Your task to perform on an android device: Search for logitech g502 on ebay.com, select the first entry, add it to the cart, then select checkout. Image 0: 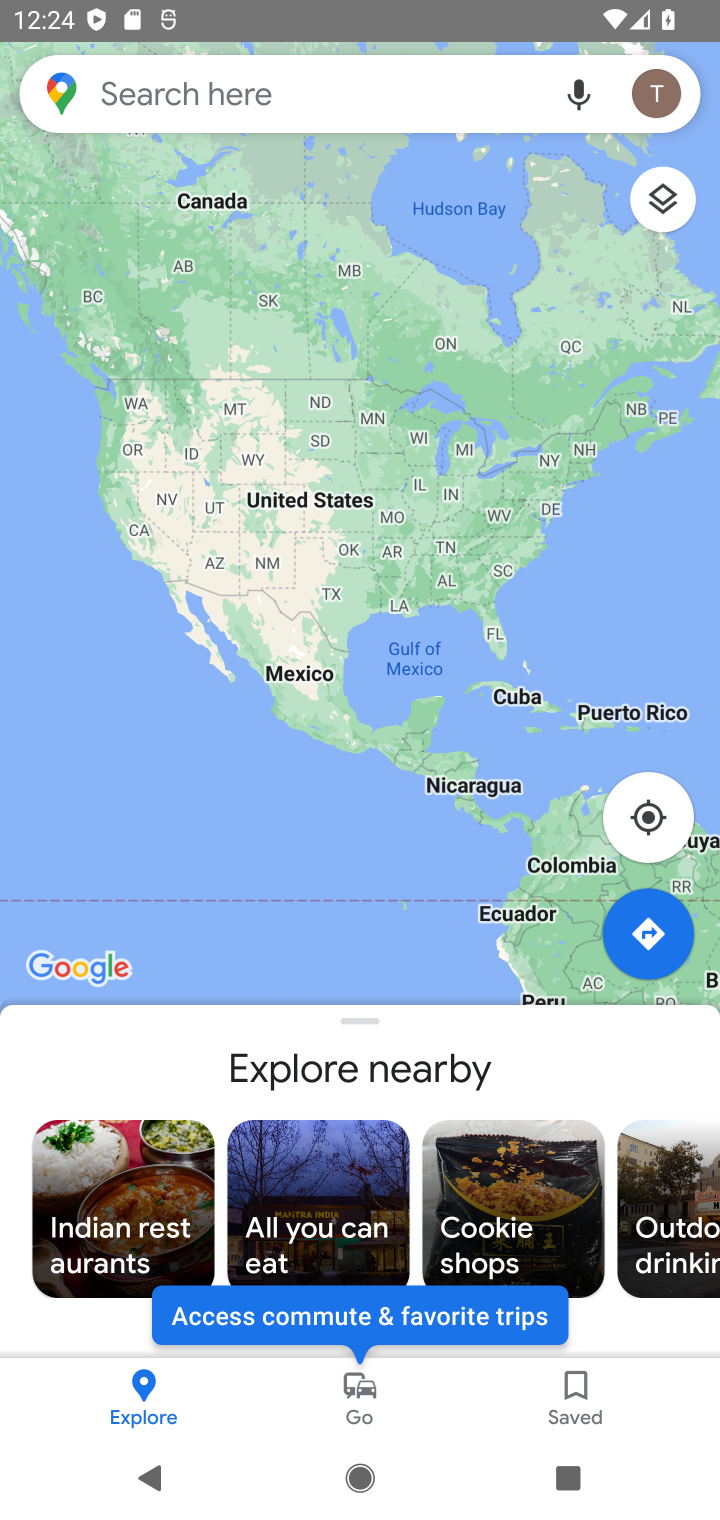
Step 0: press home button
Your task to perform on an android device: Search for logitech g502 on ebay.com, select the first entry, add it to the cart, then select checkout. Image 1: 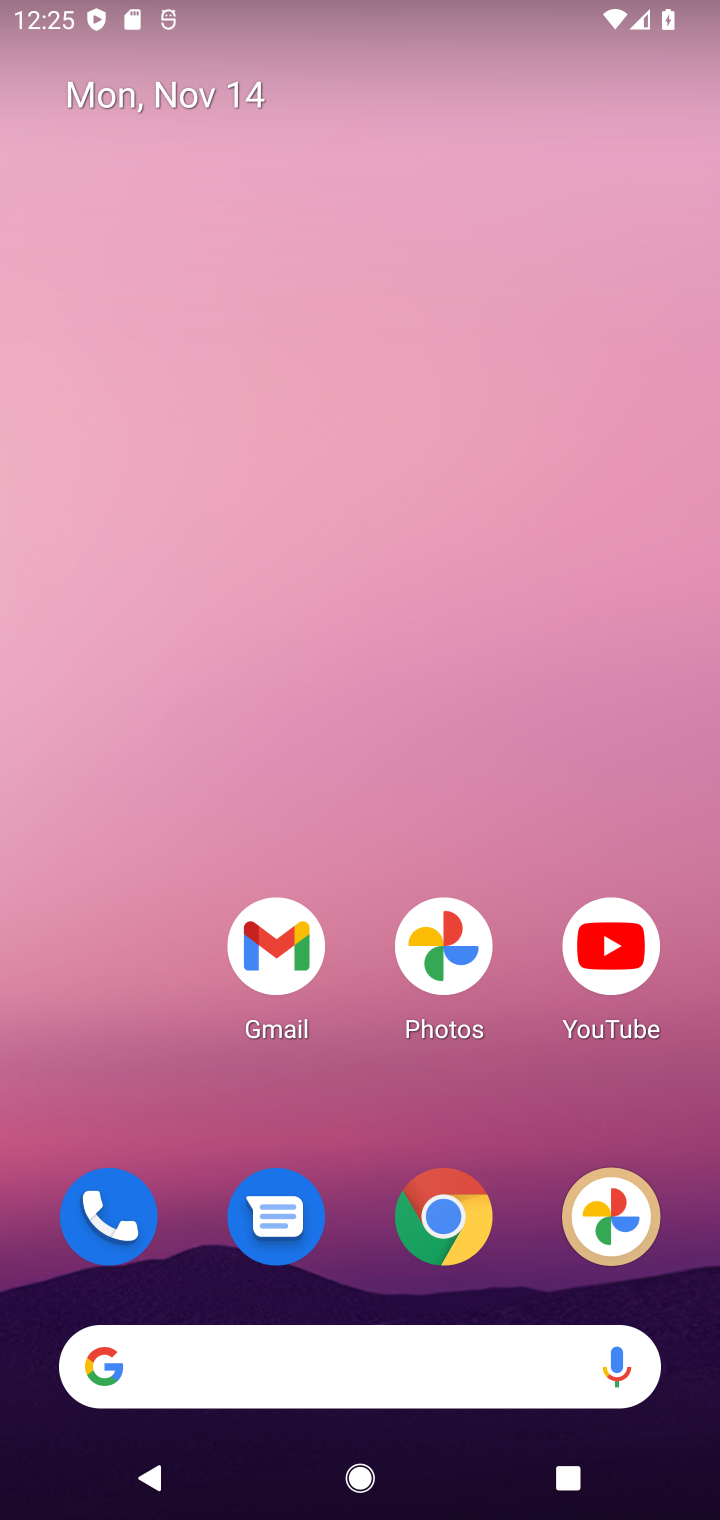
Step 1: click (454, 1202)
Your task to perform on an android device: Search for logitech g502 on ebay.com, select the first entry, add it to the cart, then select checkout. Image 2: 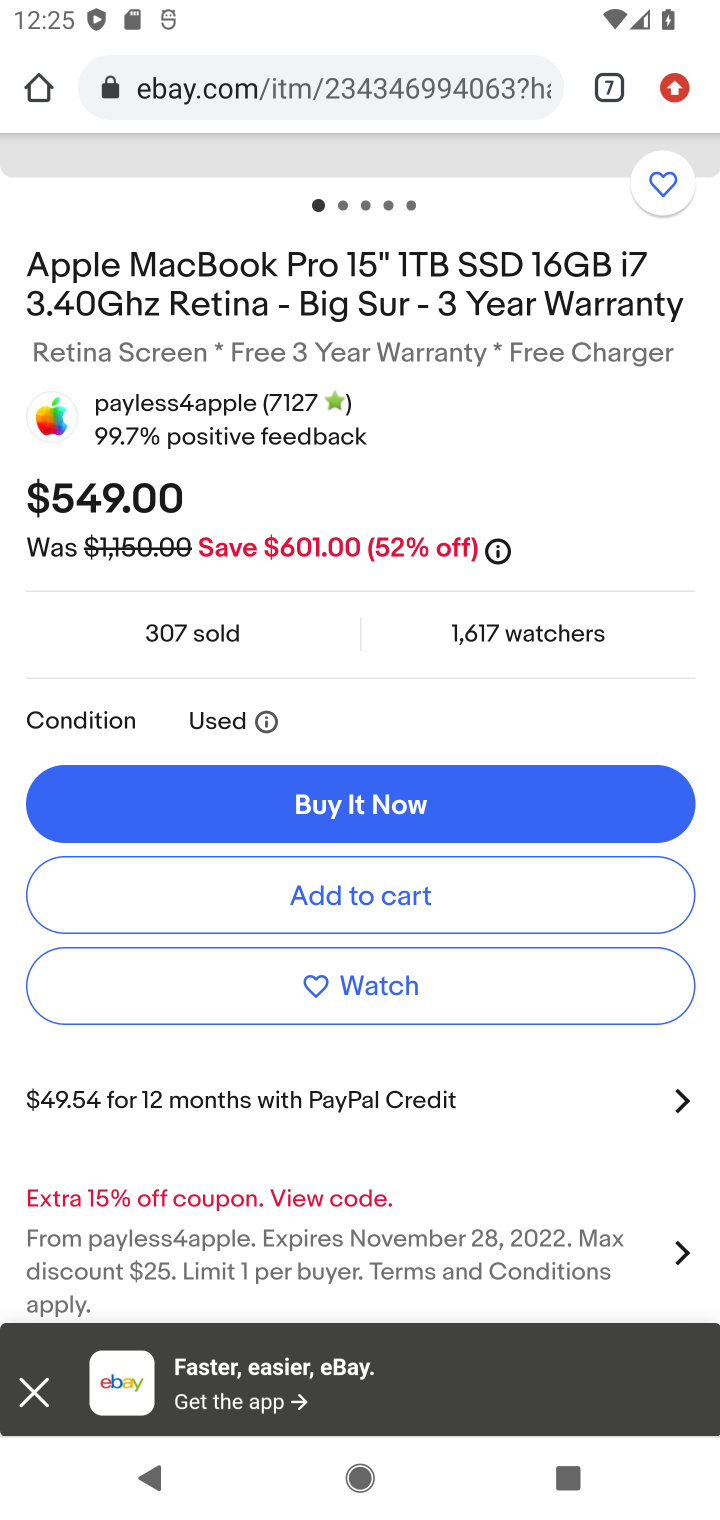
Step 2: drag from (460, 231) to (305, 1464)
Your task to perform on an android device: Search for logitech g502 on ebay.com, select the first entry, add it to the cart, then select checkout. Image 3: 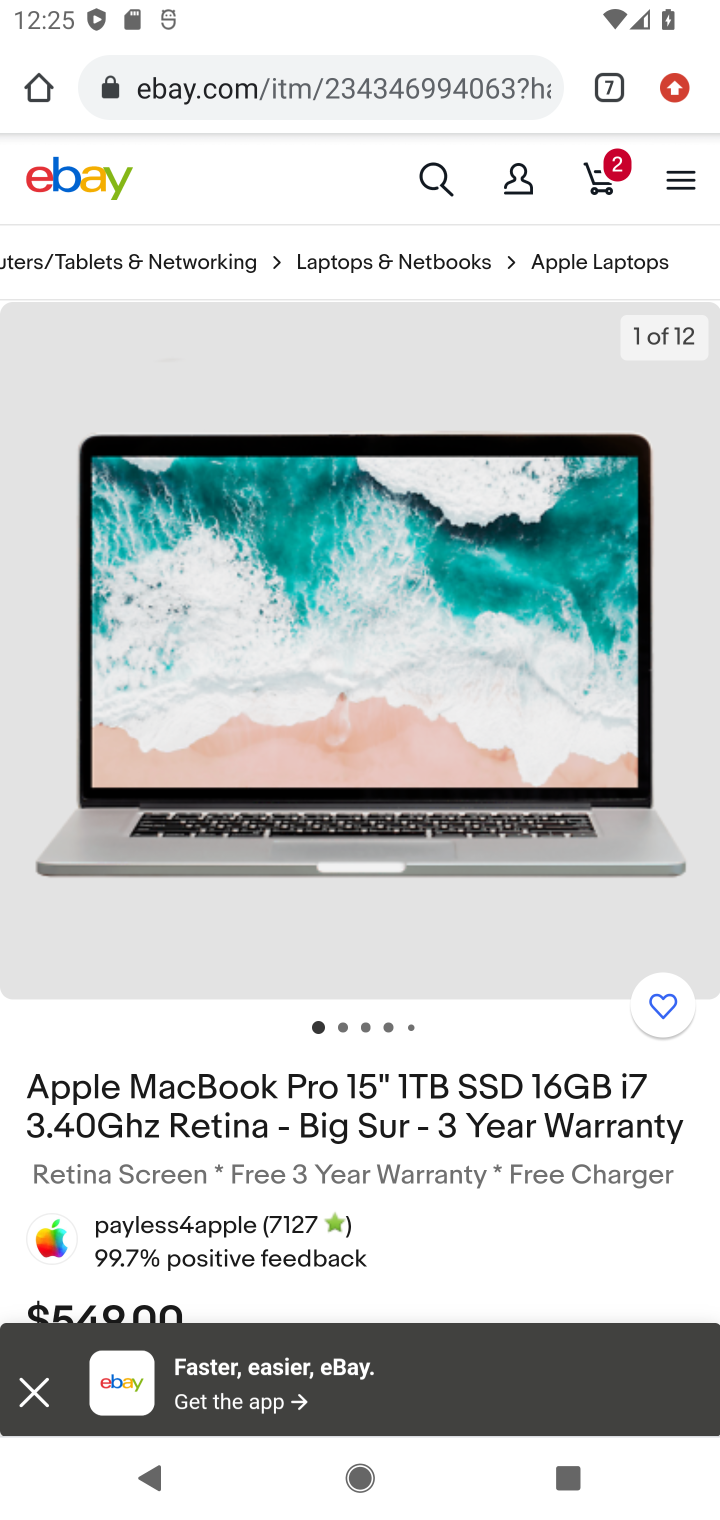
Step 3: click (431, 186)
Your task to perform on an android device: Search for logitech g502 on ebay.com, select the first entry, add it to the cart, then select checkout. Image 4: 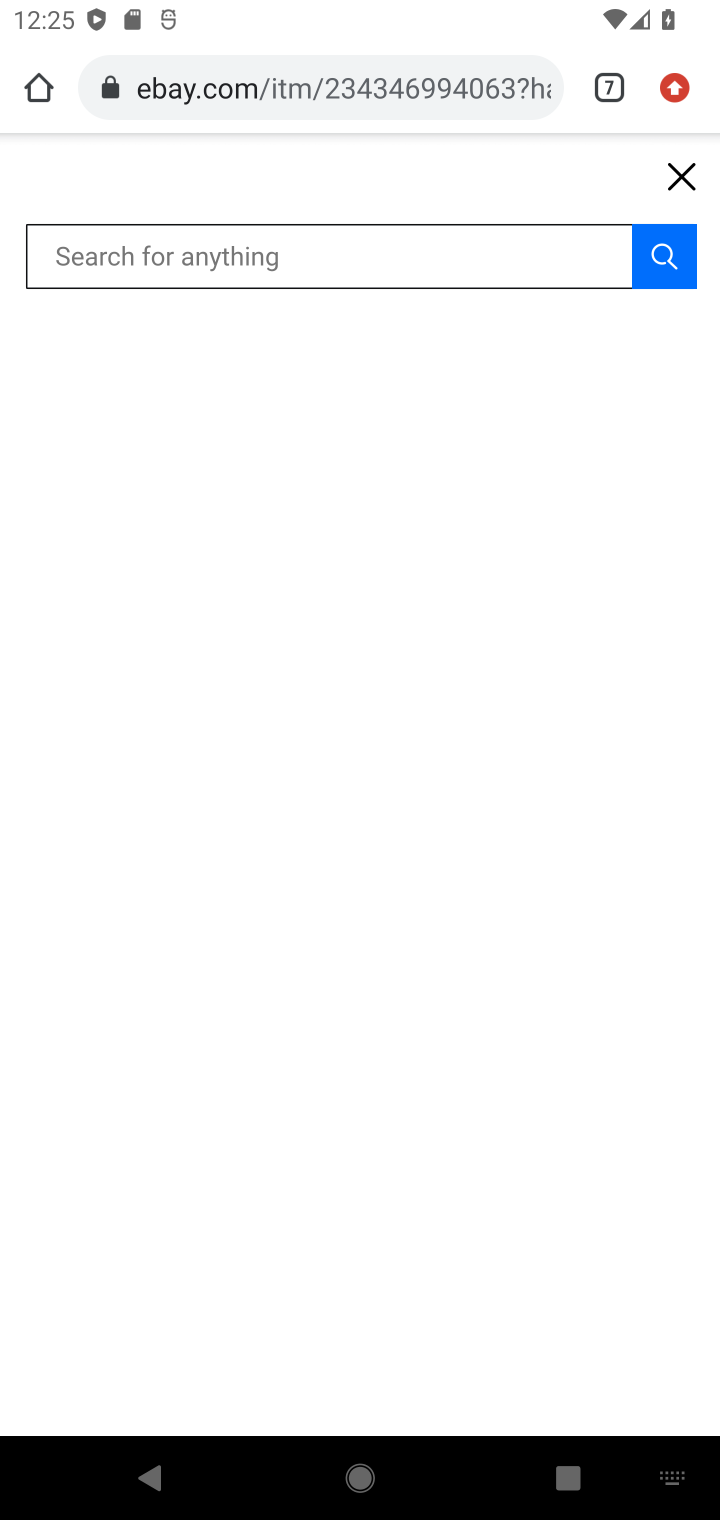
Step 4: type "logitech g502"
Your task to perform on an android device: Search for logitech g502 on ebay.com, select the first entry, add it to the cart, then select checkout. Image 5: 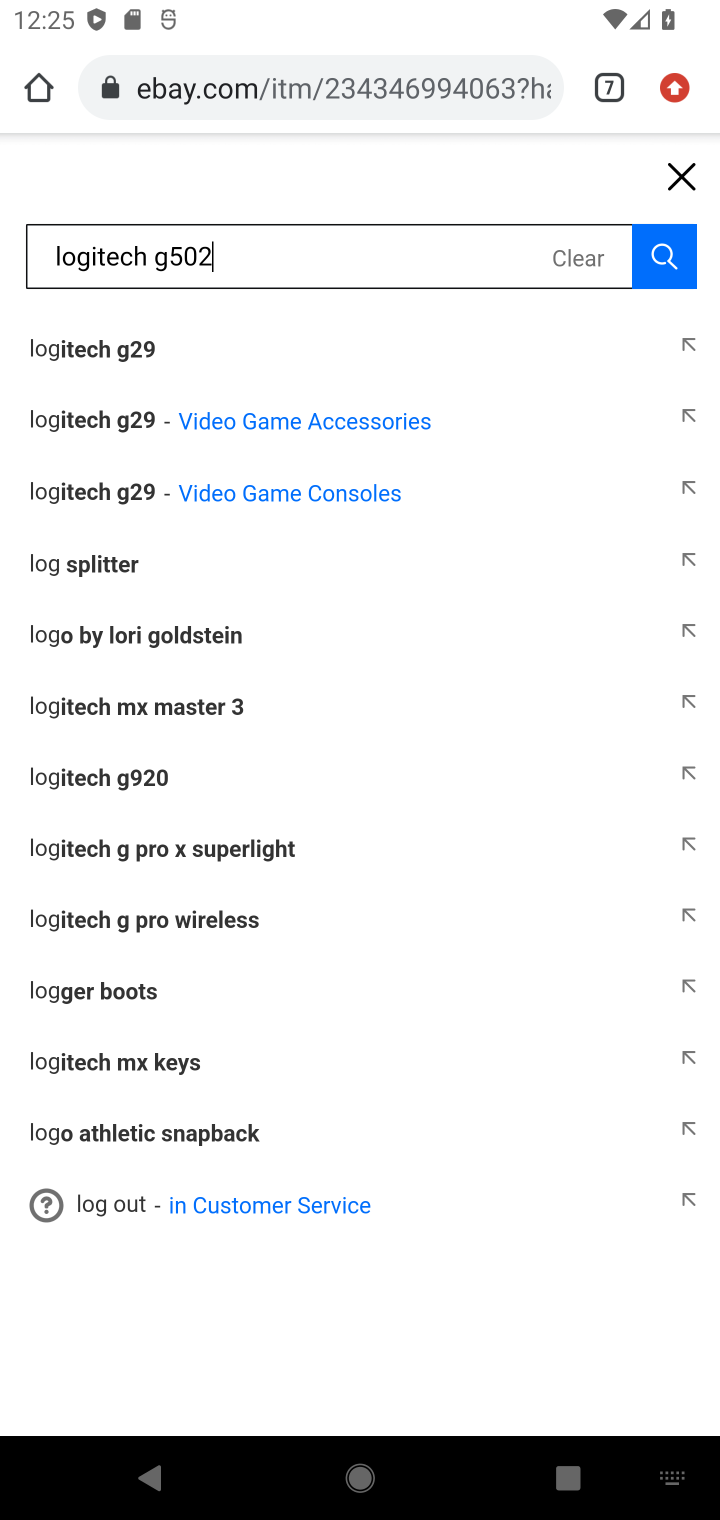
Step 5: click (658, 258)
Your task to perform on an android device: Search for logitech g502 on ebay.com, select the first entry, add it to the cart, then select checkout. Image 6: 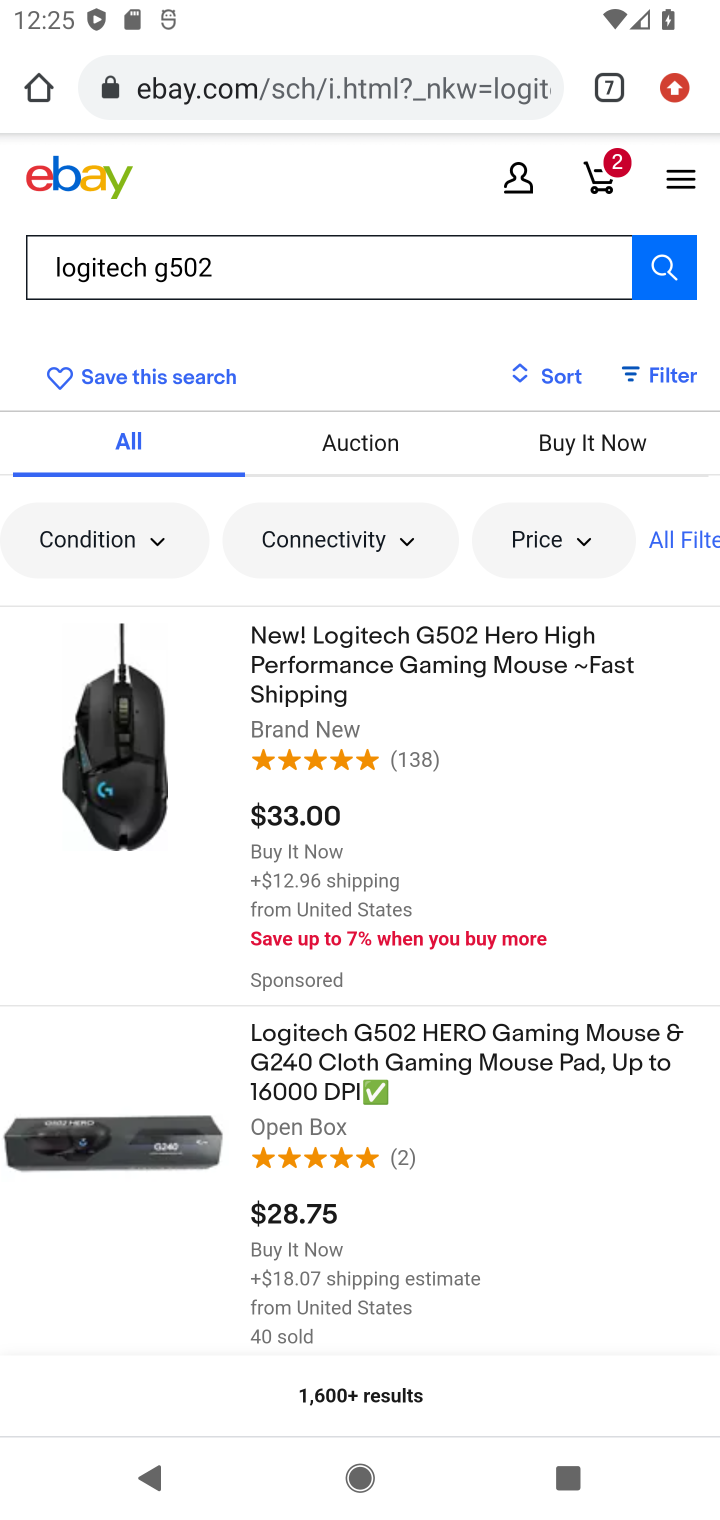
Step 6: click (432, 659)
Your task to perform on an android device: Search for logitech g502 on ebay.com, select the first entry, add it to the cart, then select checkout. Image 7: 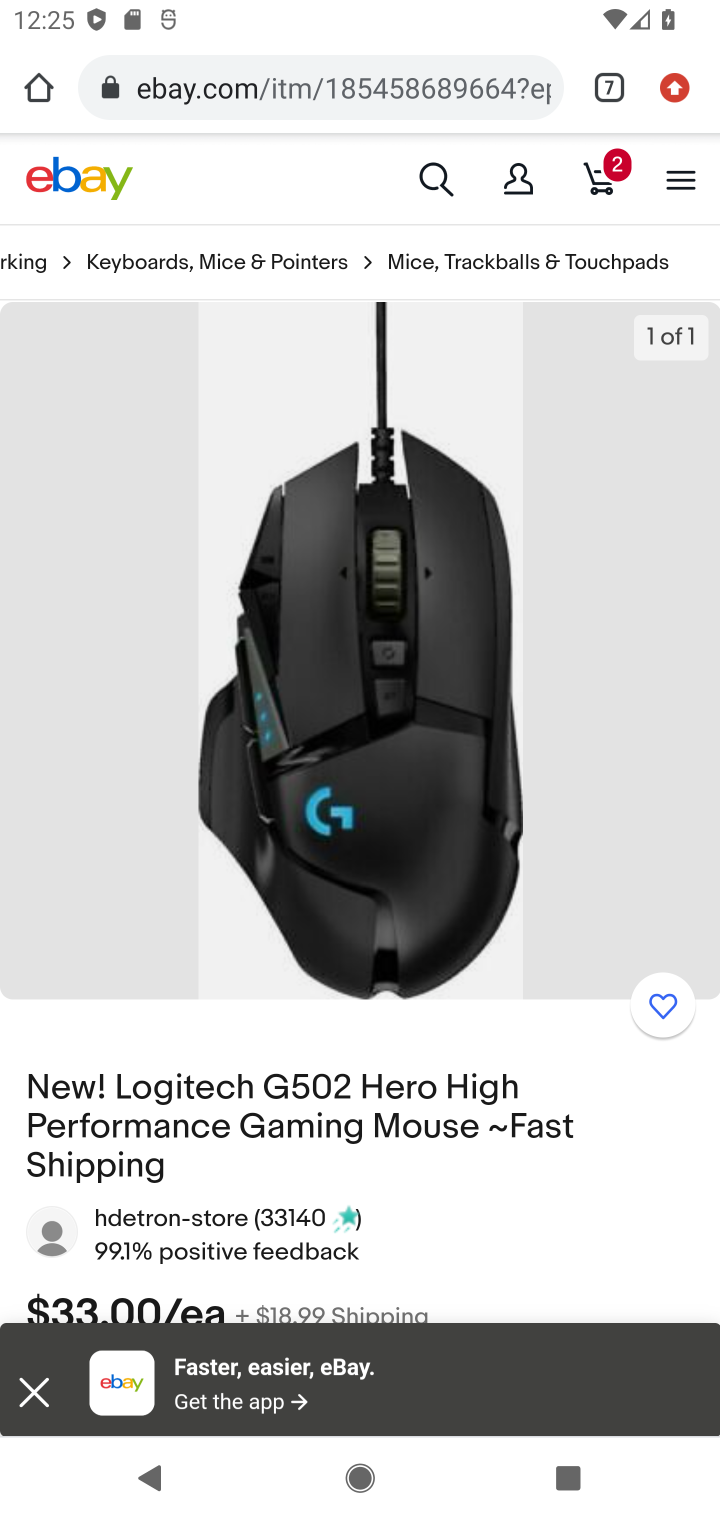
Step 7: drag from (396, 1227) to (702, 943)
Your task to perform on an android device: Search for logitech g502 on ebay.com, select the first entry, add it to the cart, then select checkout. Image 8: 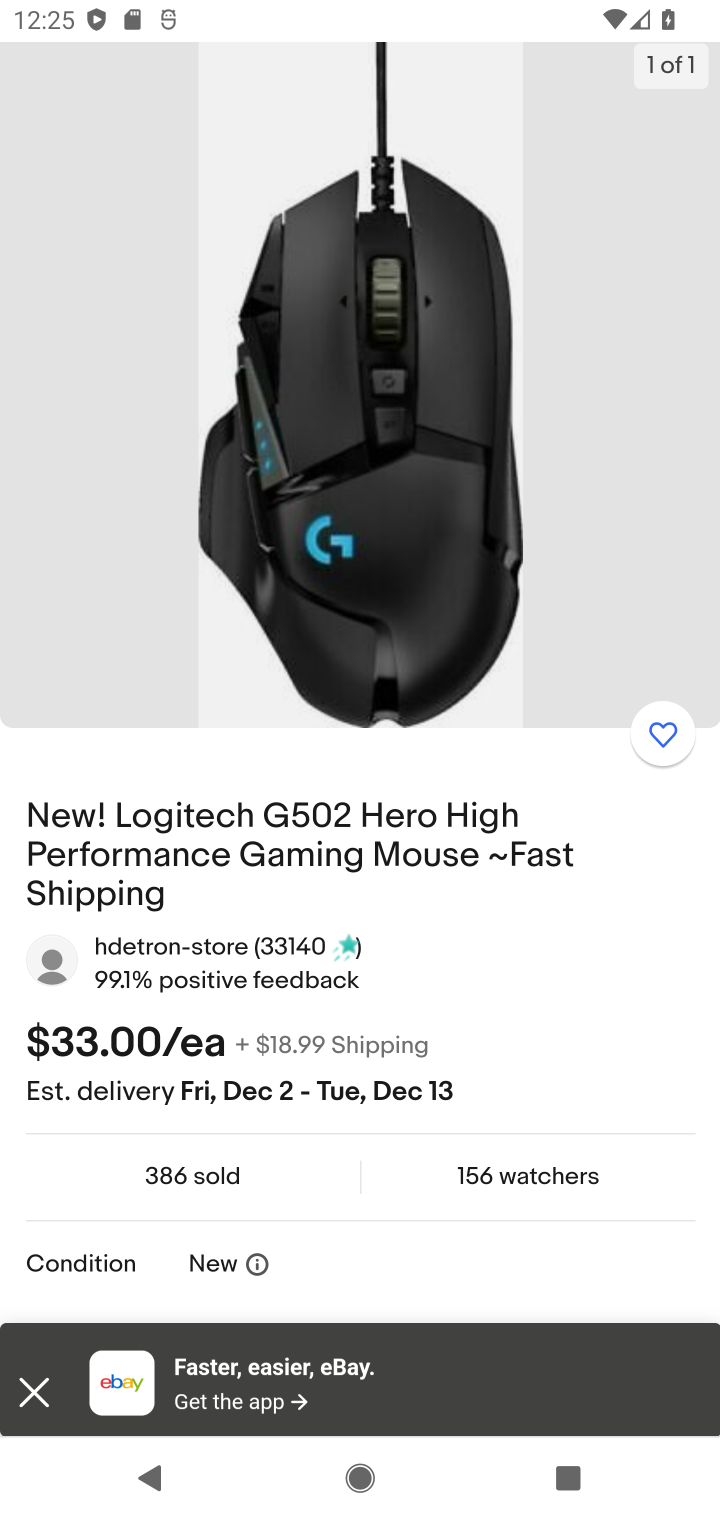
Step 8: drag from (510, 995) to (526, 289)
Your task to perform on an android device: Search for logitech g502 on ebay.com, select the first entry, add it to the cart, then select checkout. Image 9: 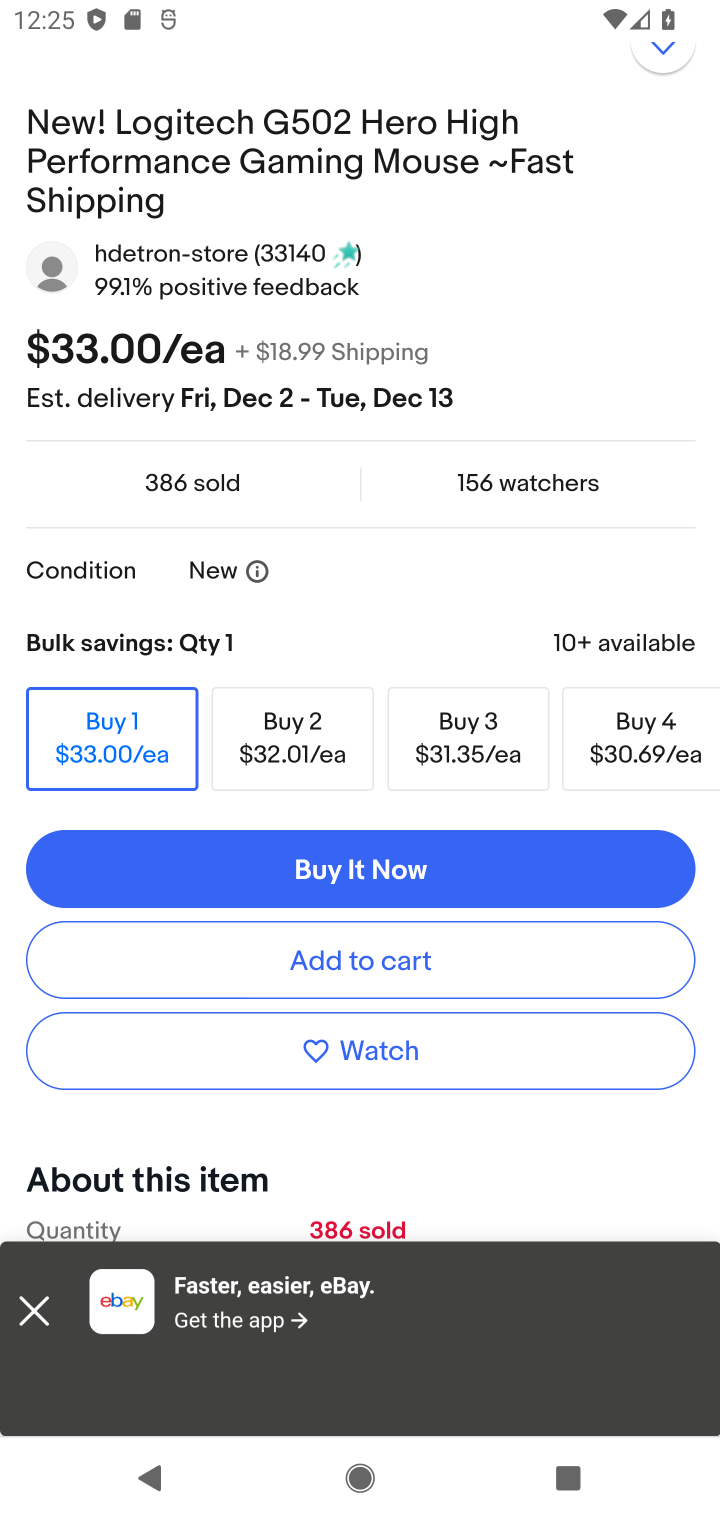
Step 9: click (426, 956)
Your task to perform on an android device: Search for logitech g502 on ebay.com, select the first entry, add it to the cart, then select checkout. Image 10: 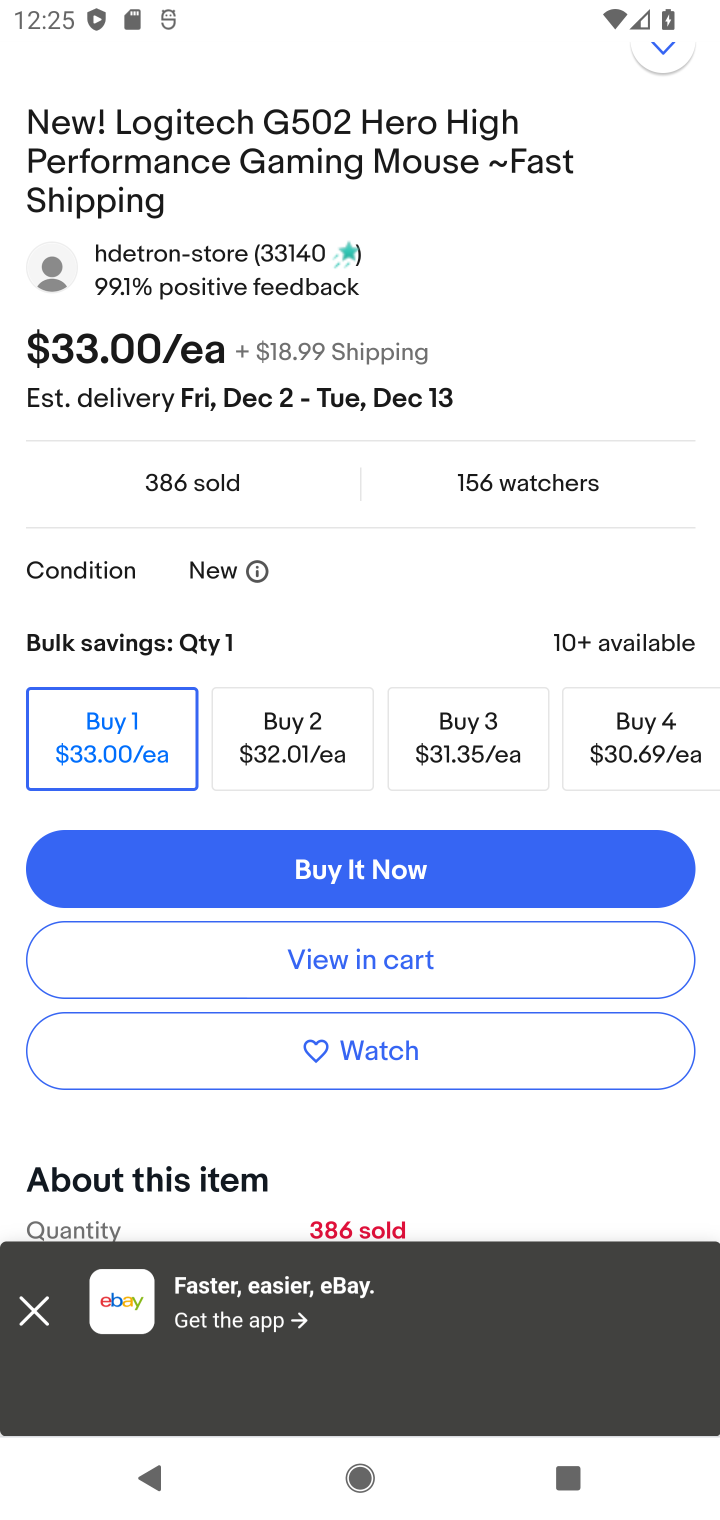
Step 10: click (426, 956)
Your task to perform on an android device: Search for logitech g502 on ebay.com, select the first entry, add it to the cart, then select checkout. Image 11: 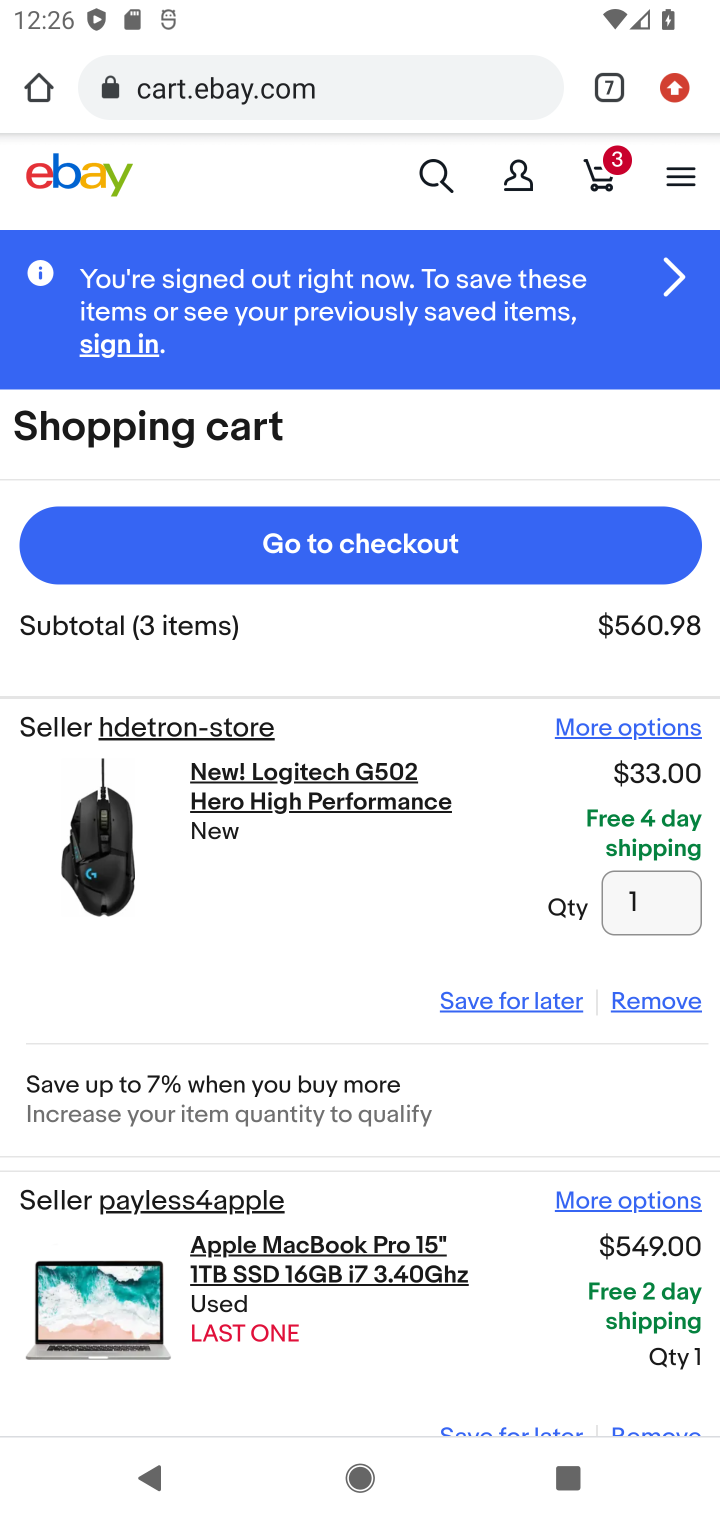
Step 11: click (357, 534)
Your task to perform on an android device: Search for logitech g502 on ebay.com, select the first entry, add it to the cart, then select checkout. Image 12: 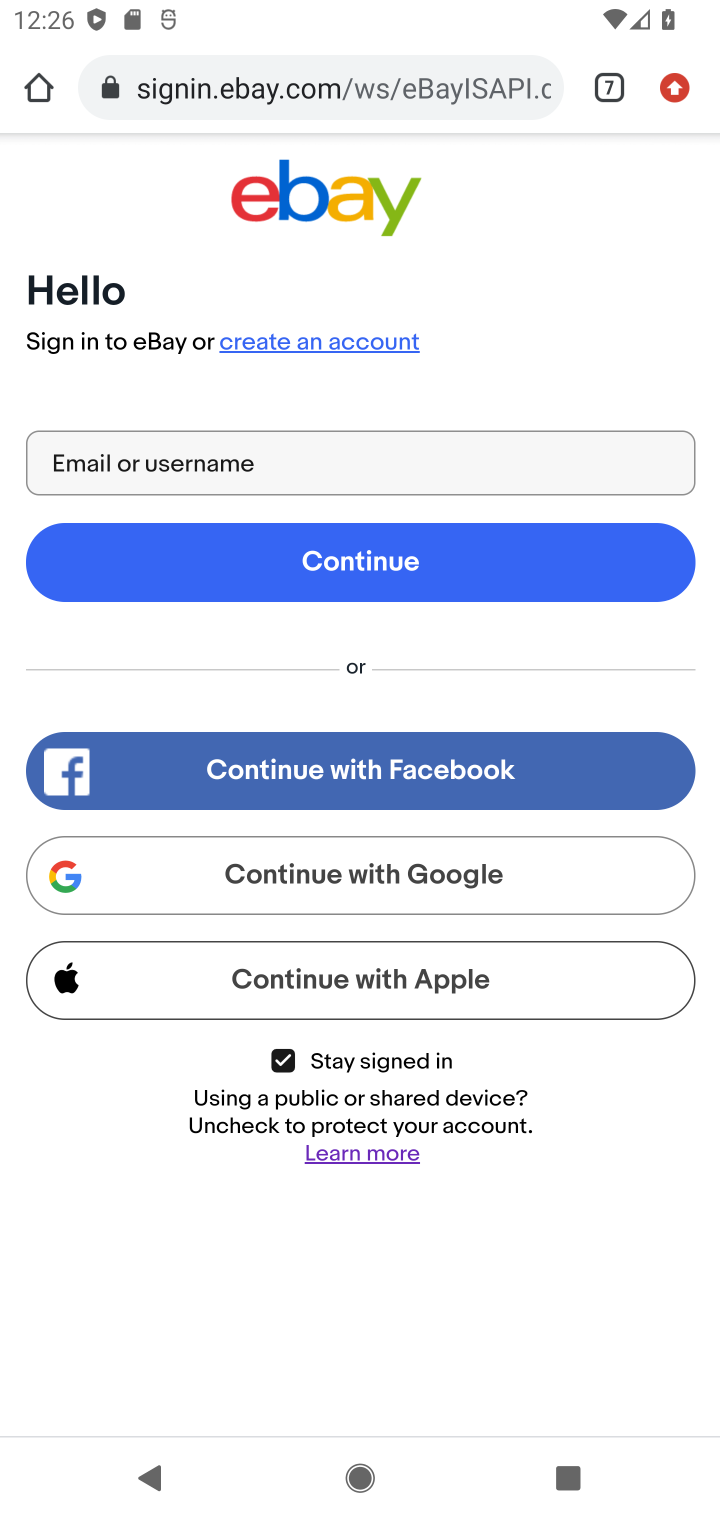
Step 12: task complete